Your task to perform on an android device: change notification settings in the gmail app Image 0: 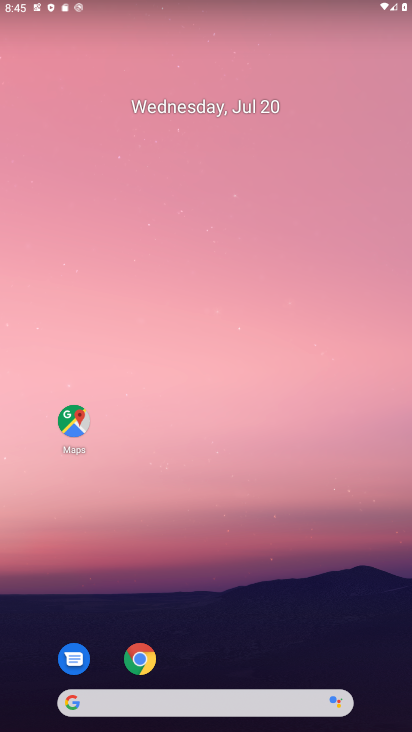
Step 0: drag from (262, 640) to (279, 60)
Your task to perform on an android device: change notification settings in the gmail app Image 1: 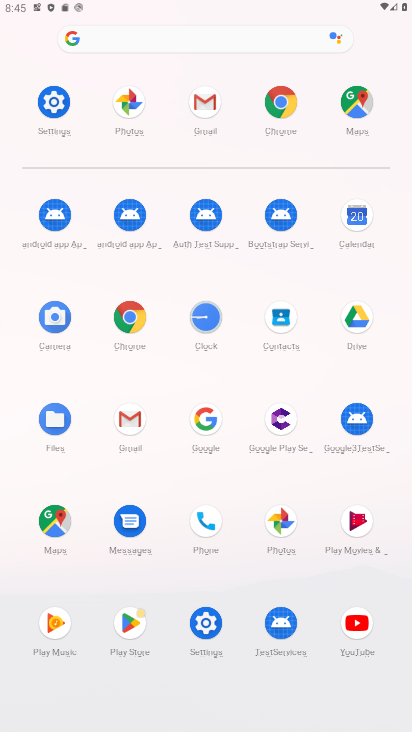
Step 1: click (138, 416)
Your task to perform on an android device: change notification settings in the gmail app Image 2: 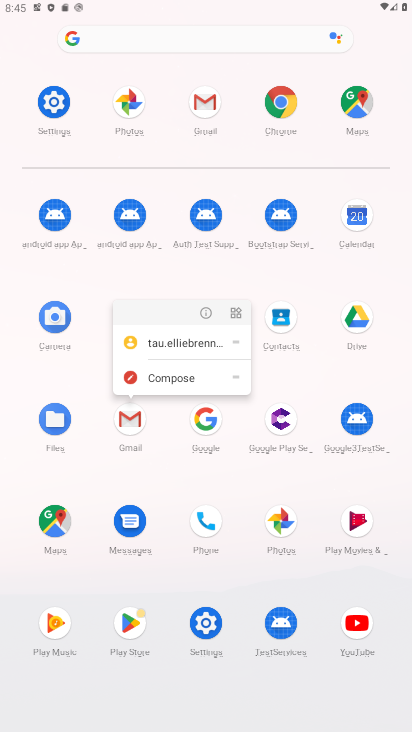
Step 2: click (207, 309)
Your task to perform on an android device: change notification settings in the gmail app Image 3: 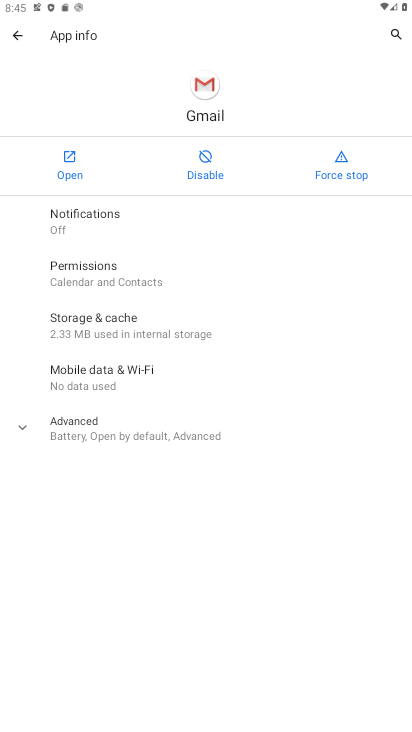
Step 3: click (190, 211)
Your task to perform on an android device: change notification settings in the gmail app Image 4: 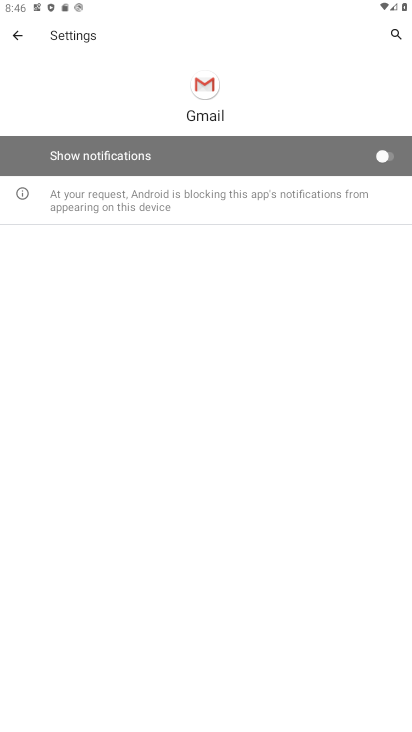
Step 4: click (293, 145)
Your task to perform on an android device: change notification settings in the gmail app Image 5: 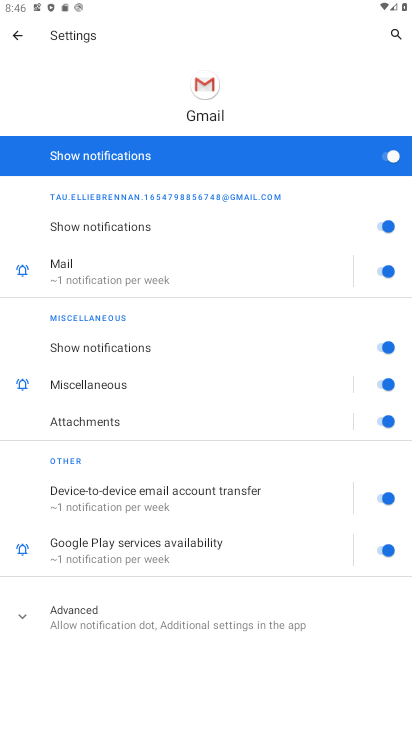
Step 5: task complete